Your task to perform on an android device: toggle notification dots Image 0: 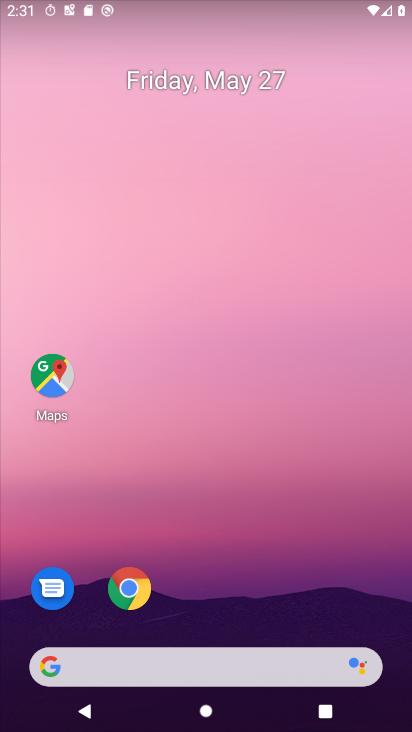
Step 0: drag from (239, 399) to (236, 80)
Your task to perform on an android device: toggle notification dots Image 1: 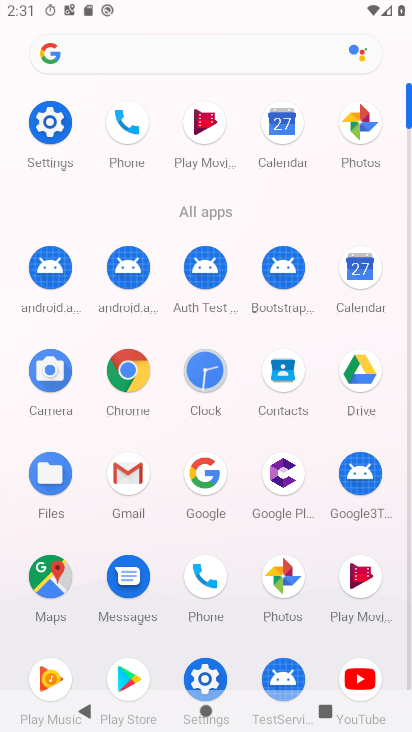
Step 1: click (47, 123)
Your task to perform on an android device: toggle notification dots Image 2: 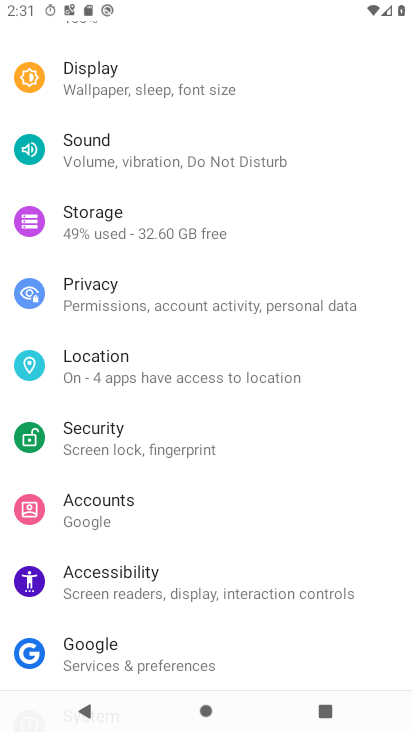
Step 2: drag from (125, 185) to (154, 635)
Your task to perform on an android device: toggle notification dots Image 3: 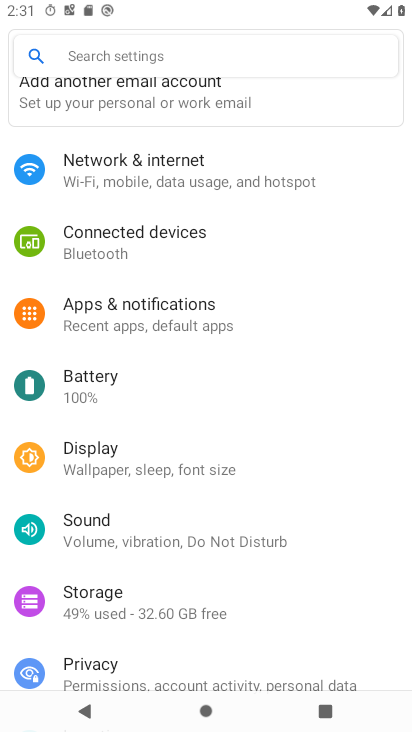
Step 3: click (149, 308)
Your task to perform on an android device: toggle notification dots Image 4: 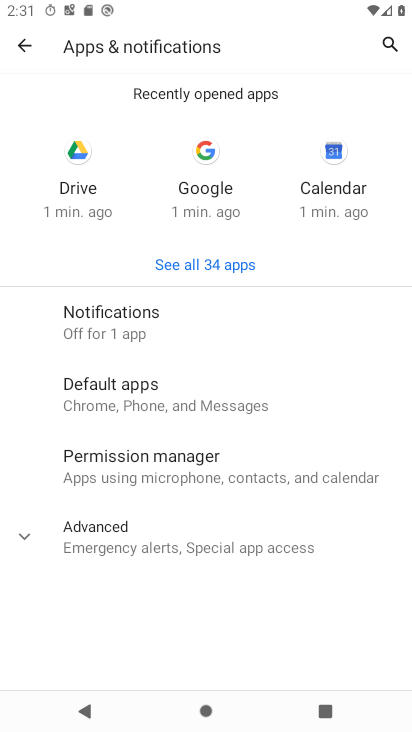
Step 4: click (85, 324)
Your task to perform on an android device: toggle notification dots Image 5: 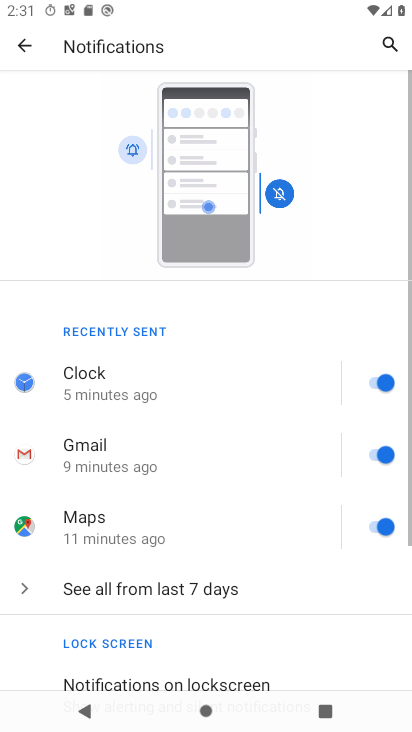
Step 5: drag from (141, 564) to (166, 244)
Your task to perform on an android device: toggle notification dots Image 6: 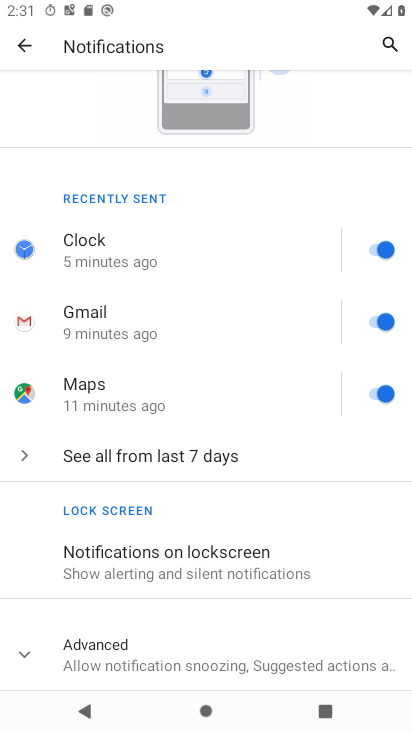
Step 6: click (191, 654)
Your task to perform on an android device: toggle notification dots Image 7: 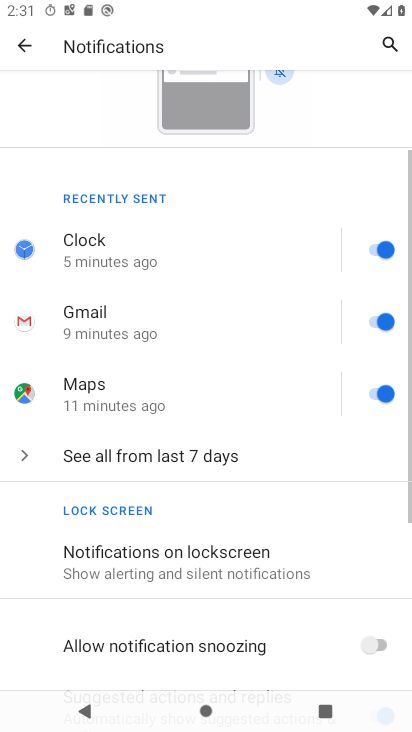
Step 7: drag from (198, 652) to (209, 290)
Your task to perform on an android device: toggle notification dots Image 8: 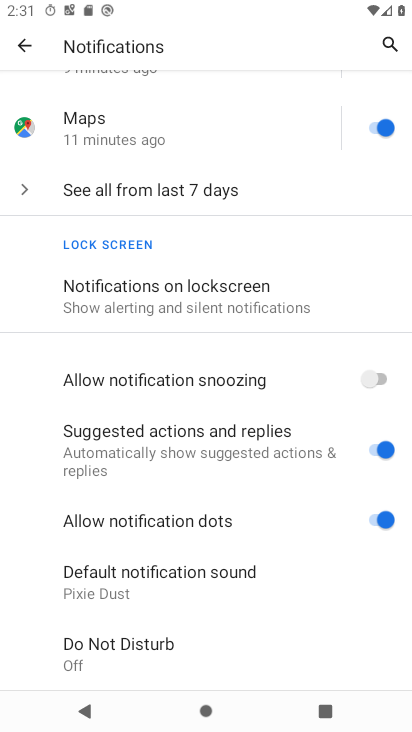
Step 8: click (376, 519)
Your task to perform on an android device: toggle notification dots Image 9: 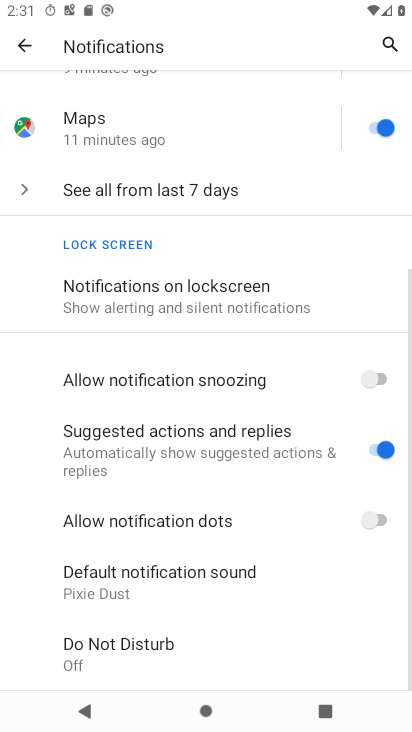
Step 9: task complete